Your task to perform on an android device: check storage Image 0: 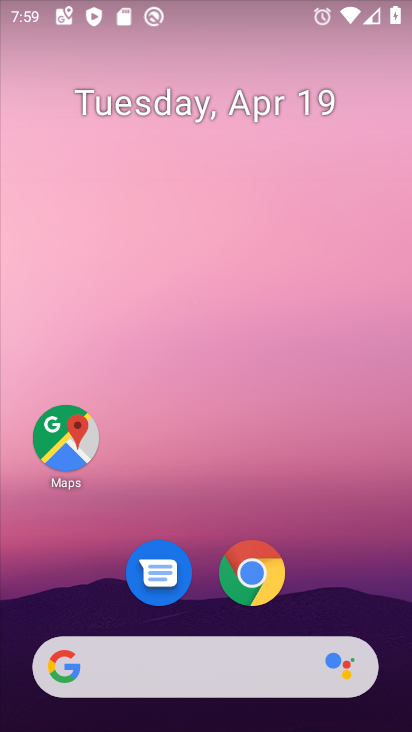
Step 0: drag from (283, 696) to (293, 14)
Your task to perform on an android device: check storage Image 1: 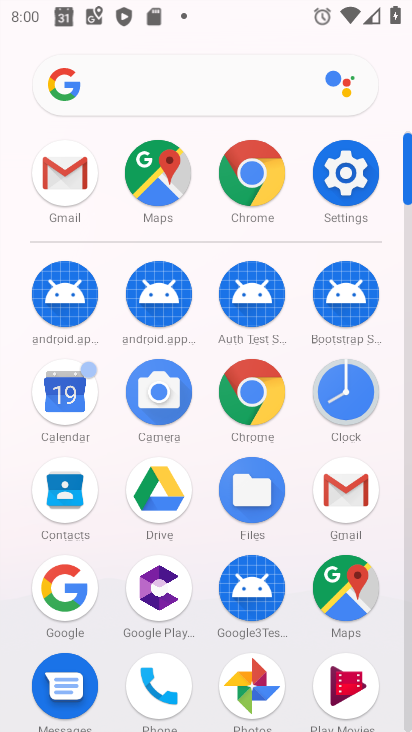
Step 1: click (346, 210)
Your task to perform on an android device: check storage Image 2: 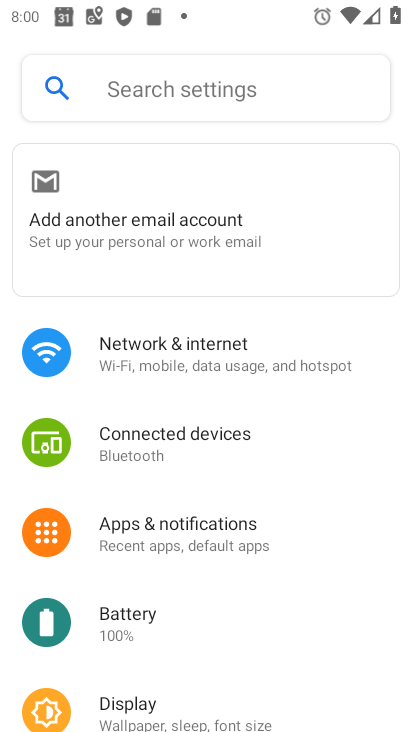
Step 2: click (174, 100)
Your task to perform on an android device: check storage Image 3: 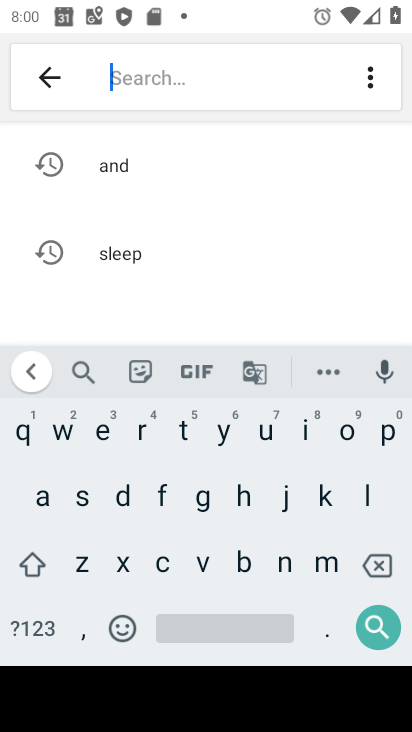
Step 3: click (74, 492)
Your task to perform on an android device: check storage Image 4: 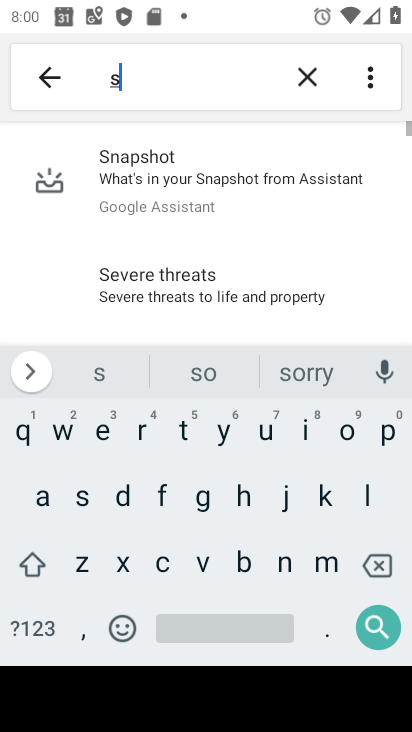
Step 4: click (182, 440)
Your task to perform on an android device: check storage Image 5: 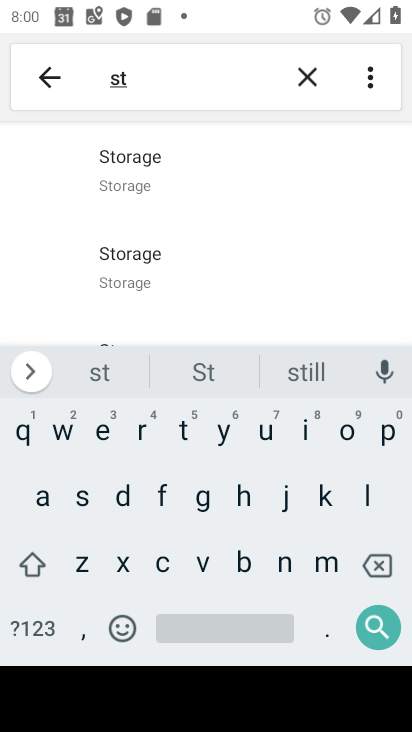
Step 5: click (164, 204)
Your task to perform on an android device: check storage Image 6: 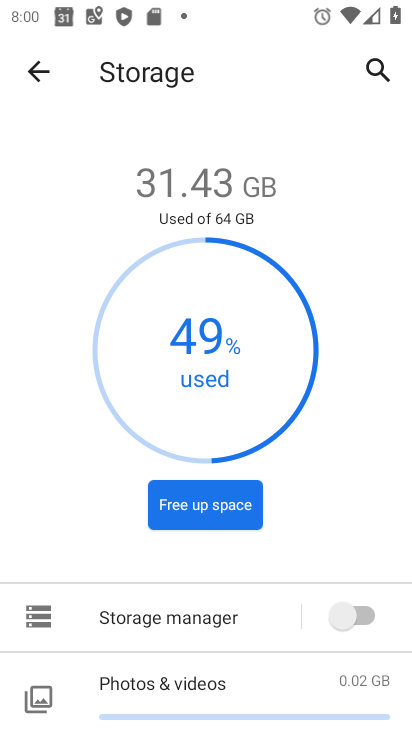
Step 6: task complete